Your task to perform on an android device: Go to notification settings Image 0: 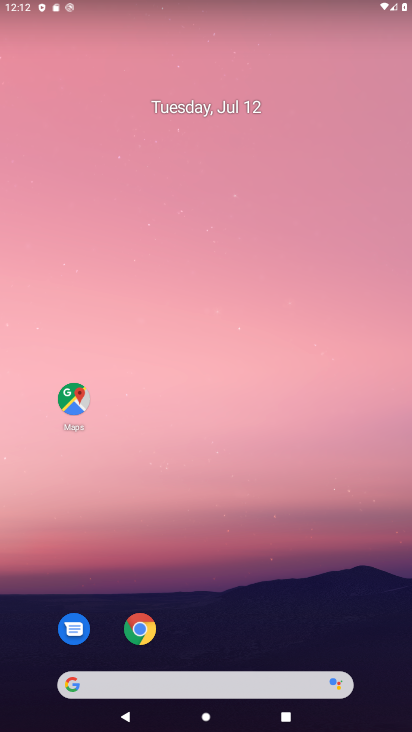
Step 0: press home button
Your task to perform on an android device: Go to notification settings Image 1: 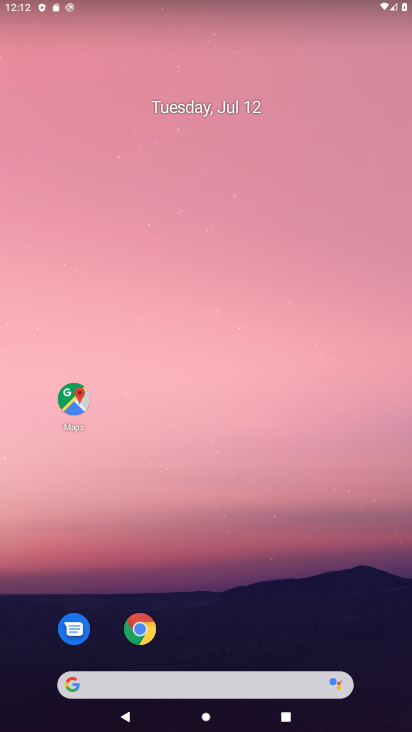
Step 1: press home button
Your task to perform on an android device: Go to notification settings Image 2: 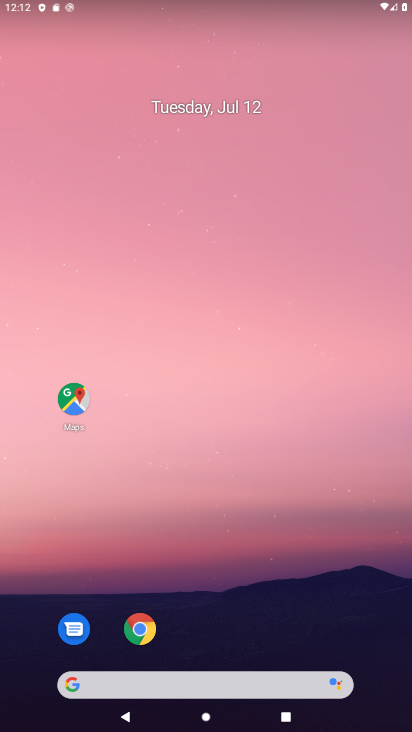
Step 2: drag from (331, 731) to (92, 45)
Your task to perform on an android device: Go to notification settings Image 3: 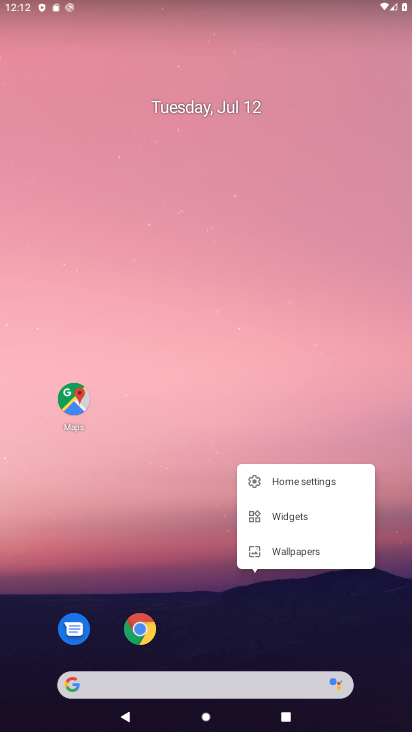
Step 3: click (114, 293)
Your task to perform on an android device: Go to notification settings Image 4: 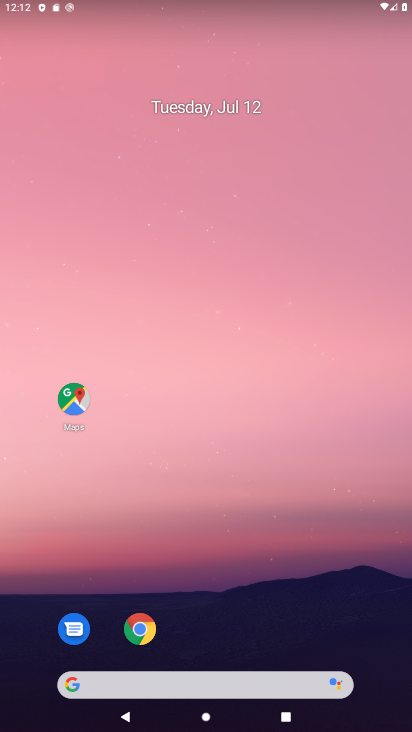
Step 4: drag from (172, 504) to (191, 94)
Your task to perform on an android device: Go to notification settings Image 5: 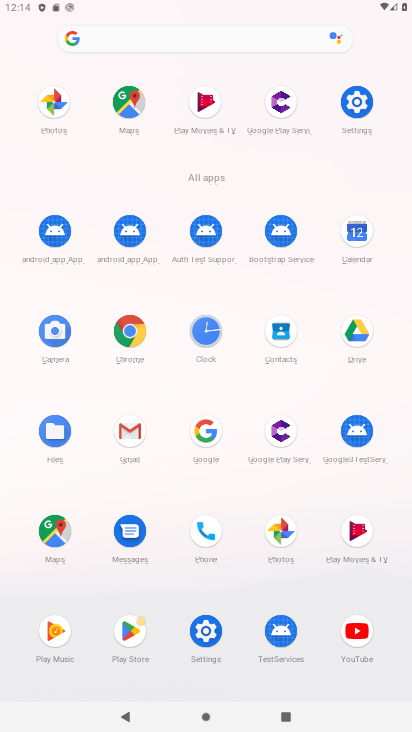
Step 5: click (196, 627)
Your task to perform on an android device: Go to notification settings Image 6: 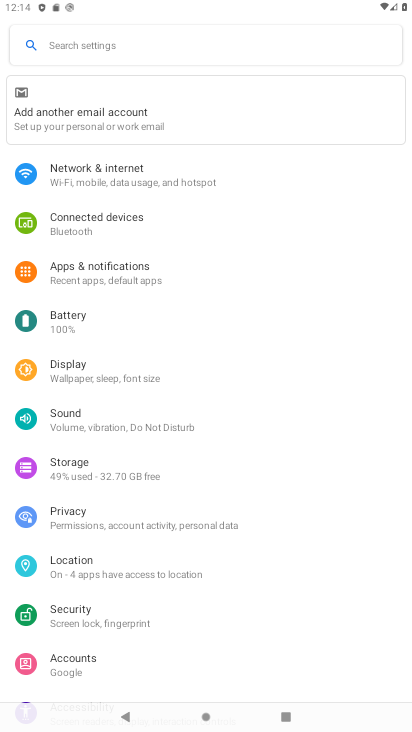
Step 6: click (56, 278)
Your task to perform on an android device: Go to notification settings Image 7: 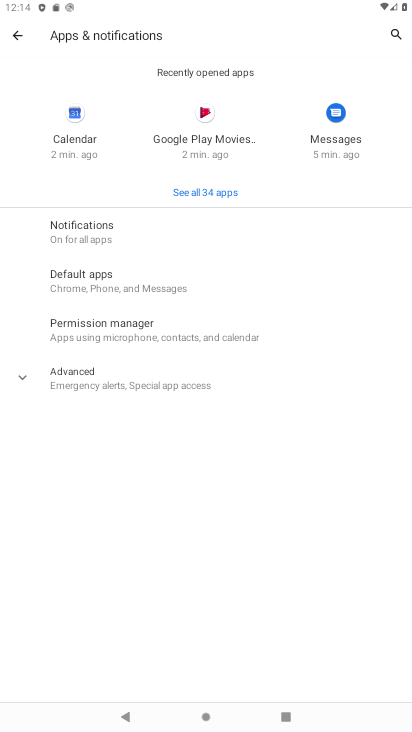
Step 7: click (133, 226)
Your task to perform on an android device: Go to notification settings Image 8: 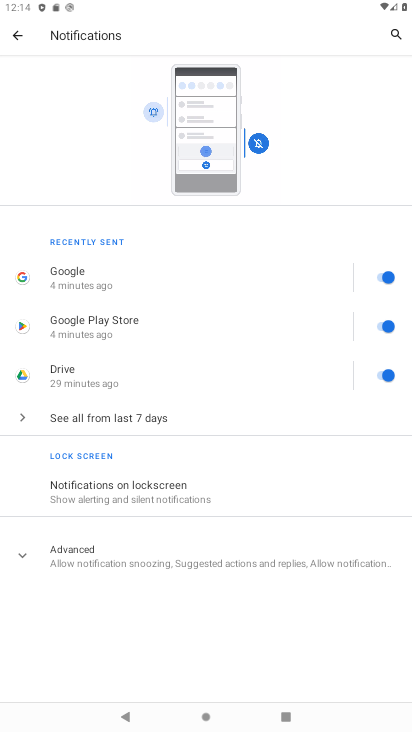
Step 8: task complete